Your task to perform on an android device: open the mobile data screen to see how much data has been used Image 0: 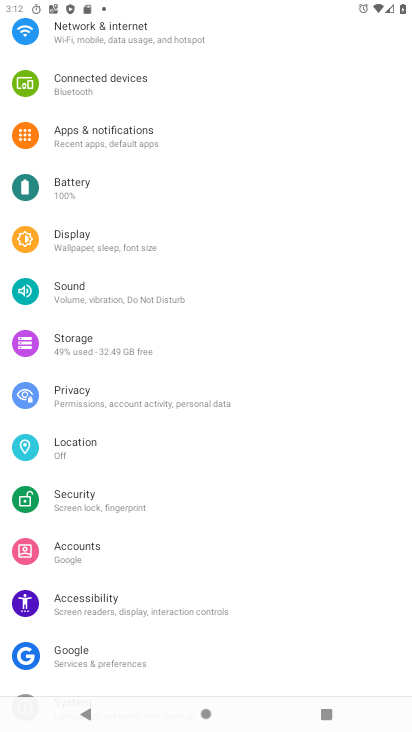
Step 0: press home button
Your task to perform on an android device: open the mobile data screen to see how much data has been used Image 1: 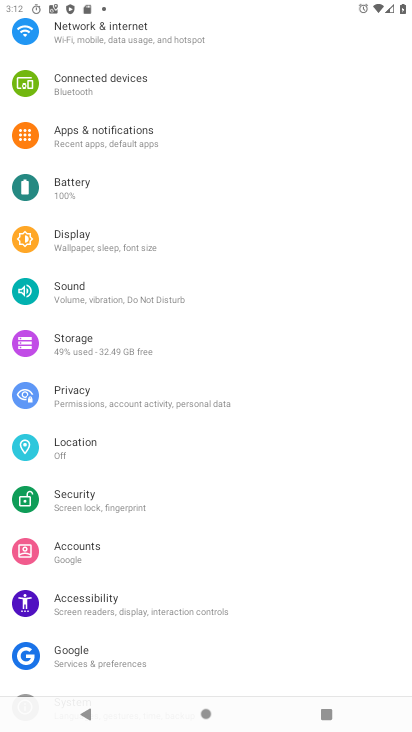
Step 1: press home button
Your task to perform on an android device: open the mobile data screen to see how much data has been used Image 2: 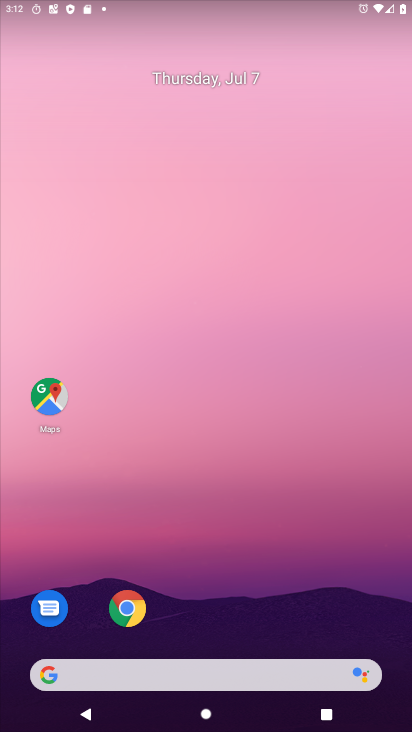
Step 2: drag from (229, 726) to (227, 11)
Your task to perform on an android device: open the mobile data screen to see how much data has been used Image 3: 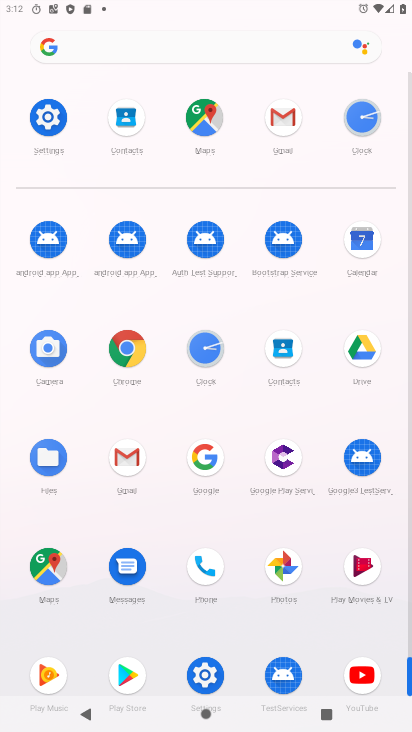
Step 3: click (49, 114)
Your task to perform on an android device: open the mobile data screen to see how much data has been used Image 4: 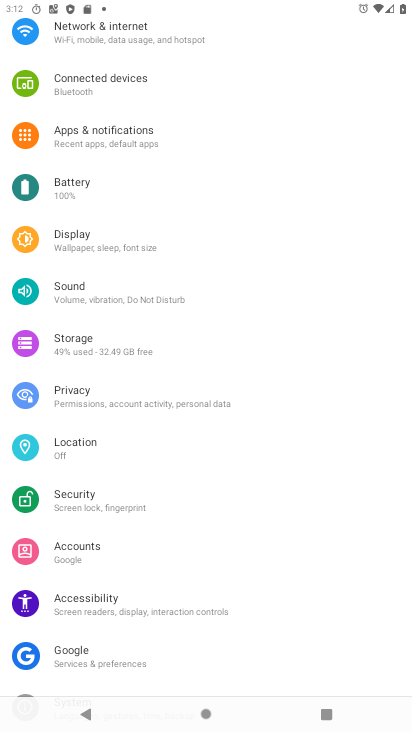
Step 4: click (101, 33)
Your task to perform on an android device: open the mobile data screen to see how much data has been used Image 5: 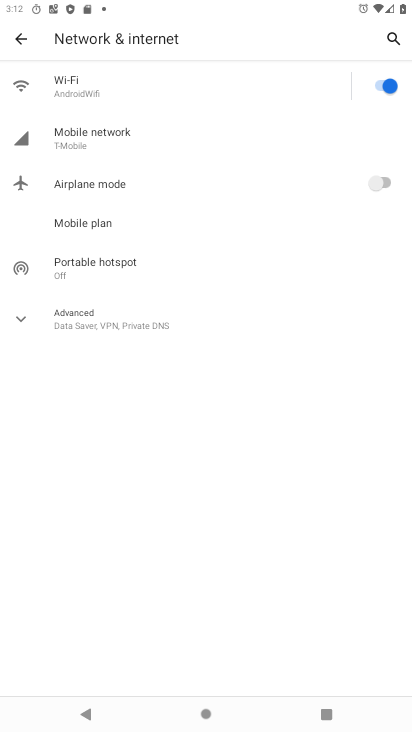
Step 5: click (75, 141)
Your task to perform on an android device: open the mobile data screen to see how much data has been used Image 6: 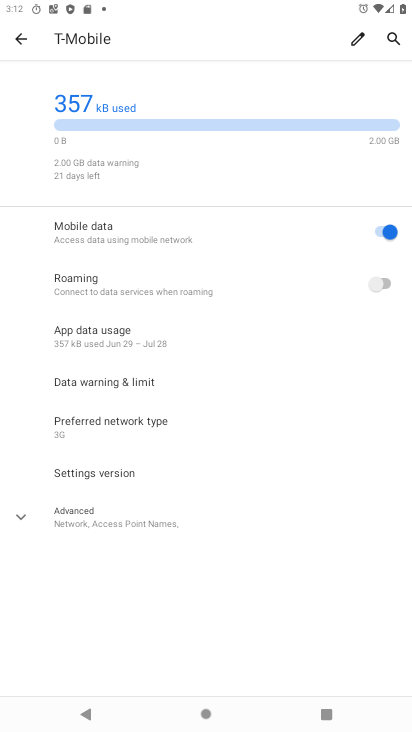
Step 6: click (100, 336)
Your task to perform on an android device: open the mobile data screen to see how much data has been used Image 7: 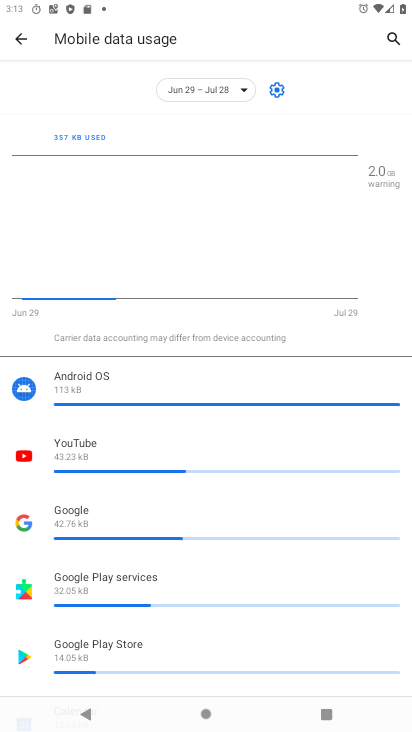
Step 7: task complete